Your task to perform on an android device: turn off wifi Image 0: 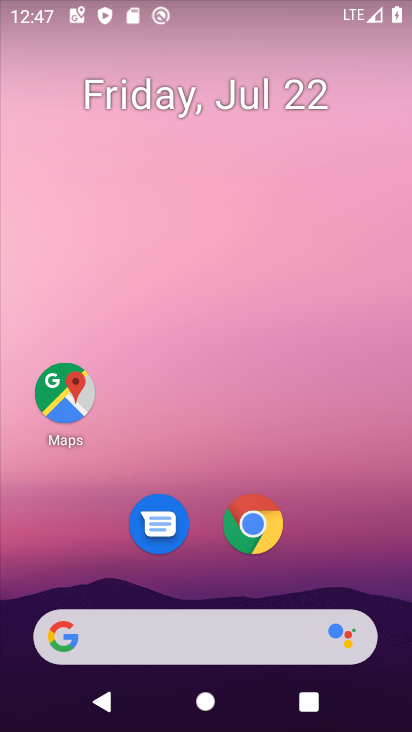
Step 0: drag from (337, 503) to (342, 118)
Your task to perform on an android device: turn off wifi Image 1: 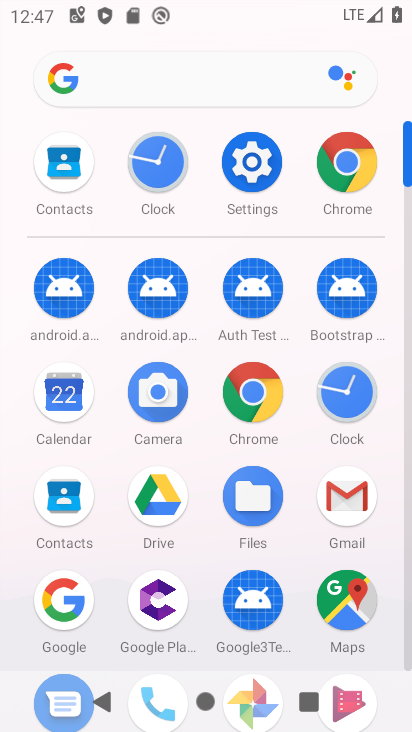
Step 1: click (257, 166)
Your task to perform on an android device: turn off wifi Image 2: 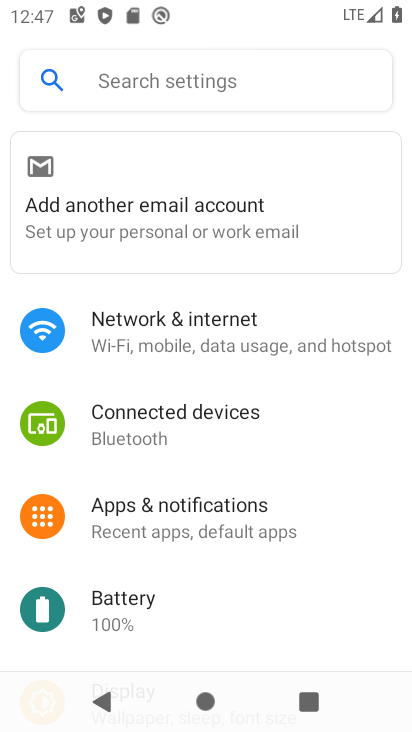
Step 2: click (205, 328)
Your task to perform on an android device: turn off wifi Image 3: 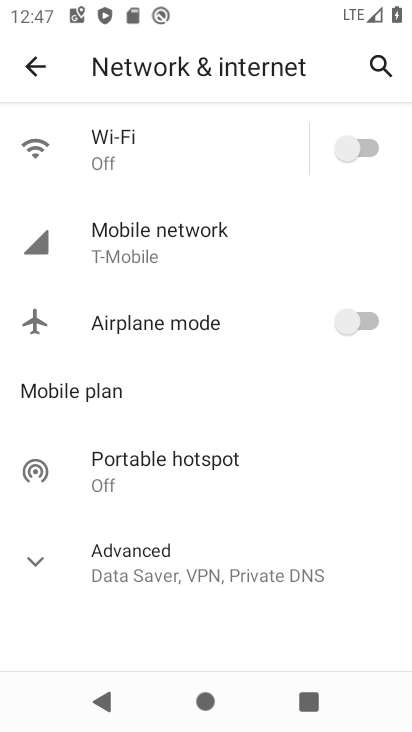
Step 3: task complete